Your task to perform on an android device: toggle improve location accuracy Image 0: 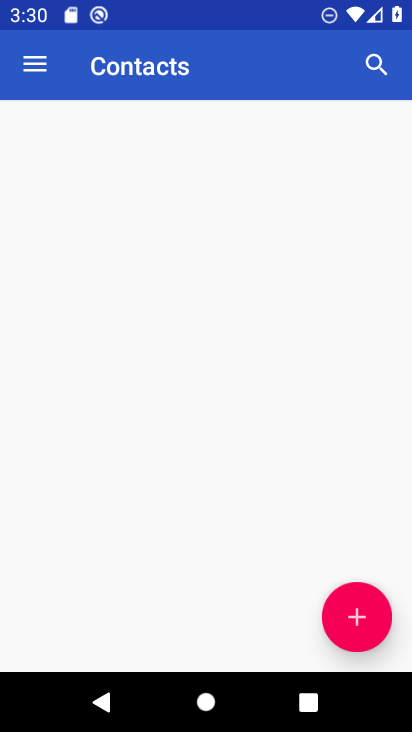
Step 0: press home button
Your task to perform on an android device: toggle improve location accuracy Image 1: 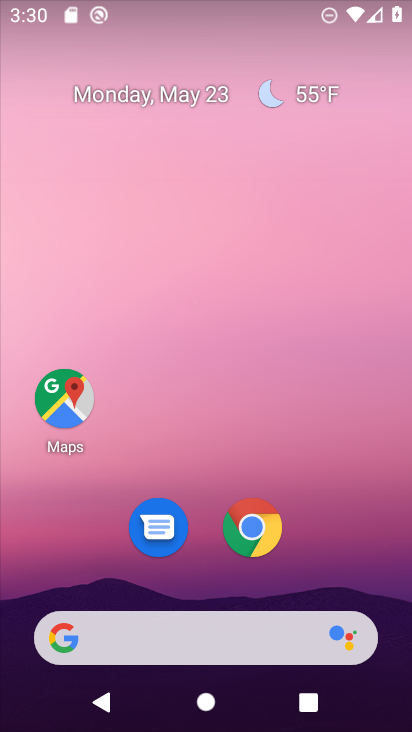
Step 1: drag from (211, 582) to (254, 112)
Your task to perform on an android device: toggle improve location accuracy Image 2: 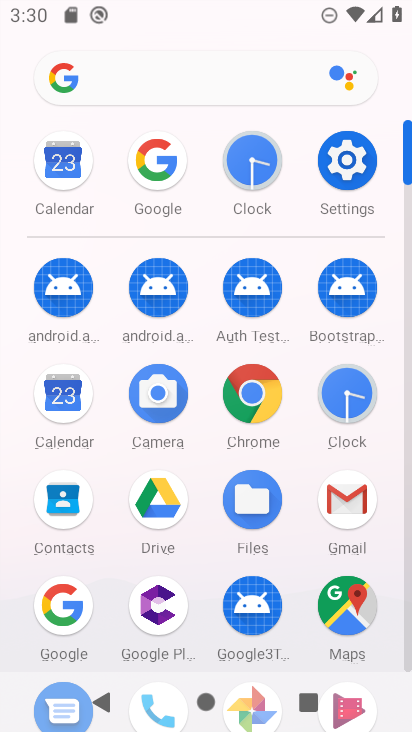
Step 2: click (345, 151)
Your task to perform on an android device: toggle improve location accuracy Image 3: 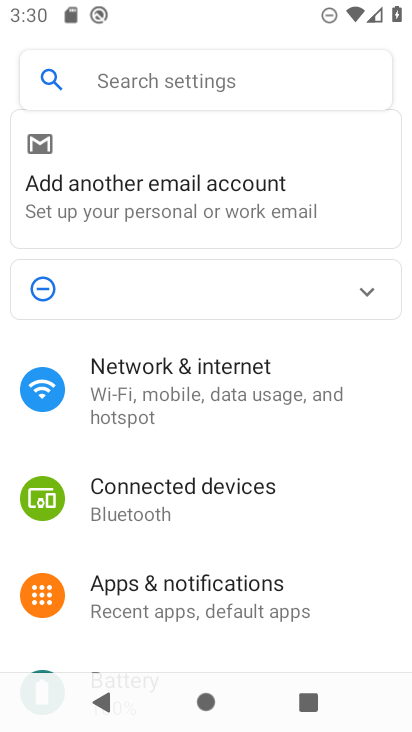
Step 3: drag from (203, 601) to (242, 198)
Your task to perform on an android device: toggle improve location accuracy Image 4: 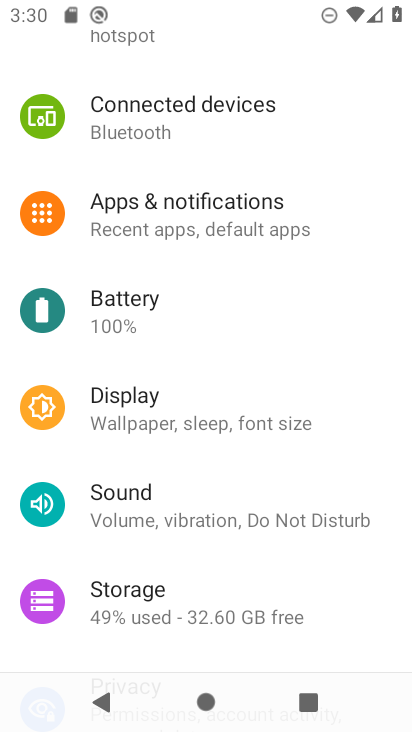
Step 4: click (242, 198)
Your task to perform on an android device: toggle improve location accuracy Image 5: 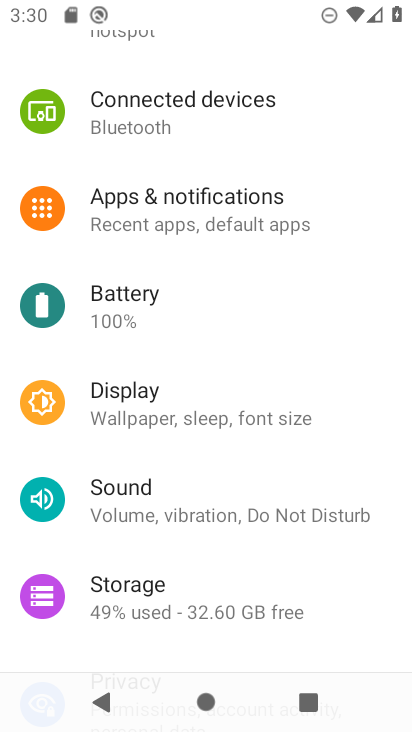
Step 5: drag from (203, 587) to (250, 130)
Your task to perform on an android device: toggle improve location accuracy Image 6: 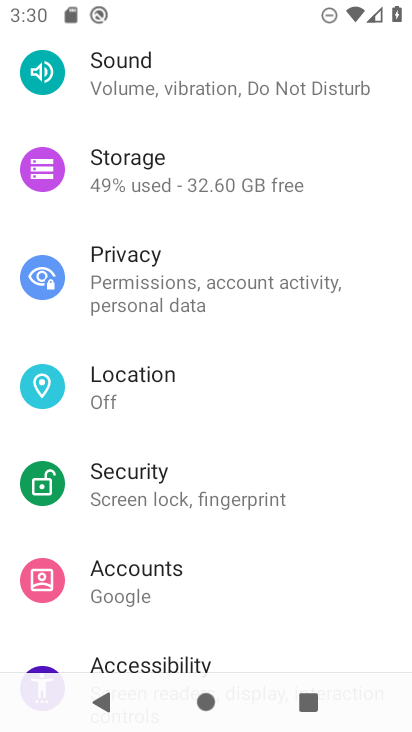
Step 6: click (148, 387)
Your task to perform on an android device: toggle improve location accuracy Image 7: 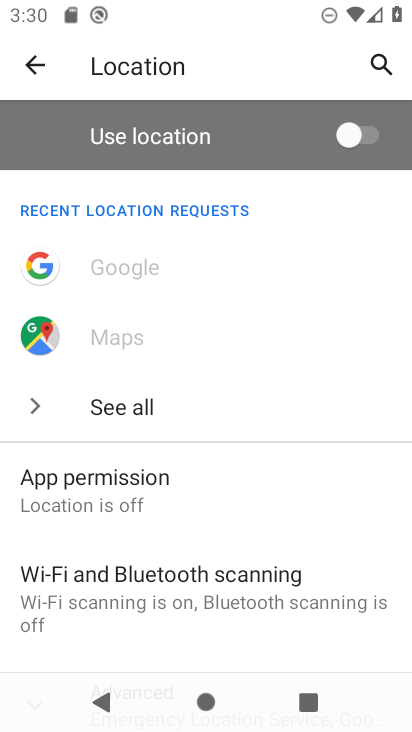
Step 7: drag from (165, 610) to (189, 149)
Your task to perform on an android device: toggle improve location accuracy Image 8: 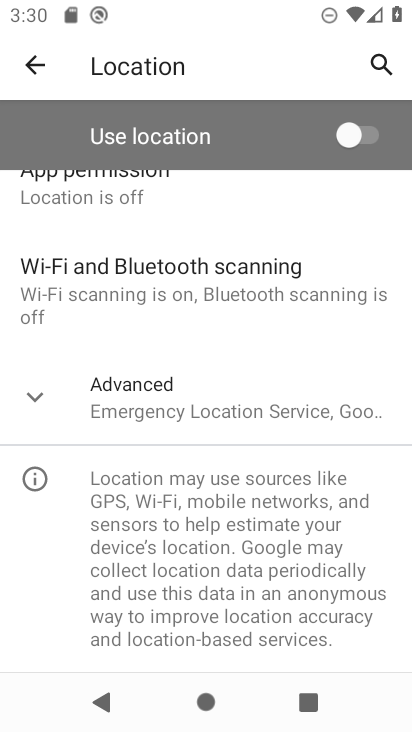
Step 8: click (33, 385)
Your task to perform on an android device: toggle improve location accuracy Image 9: 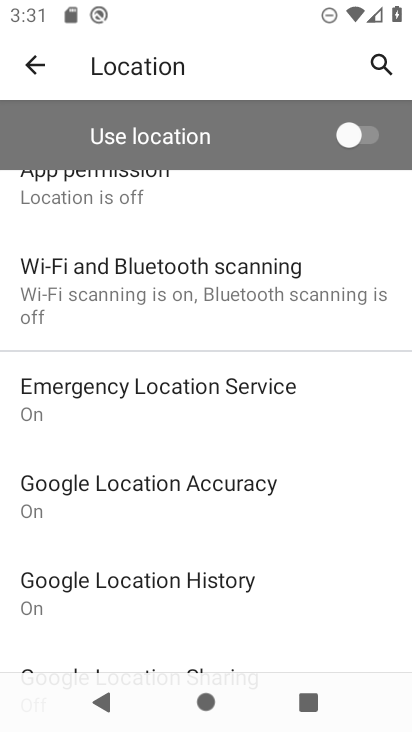
Step 9: click (104, 496)
Your task to perform on an android device: toggle improve location accuracy Image 10: 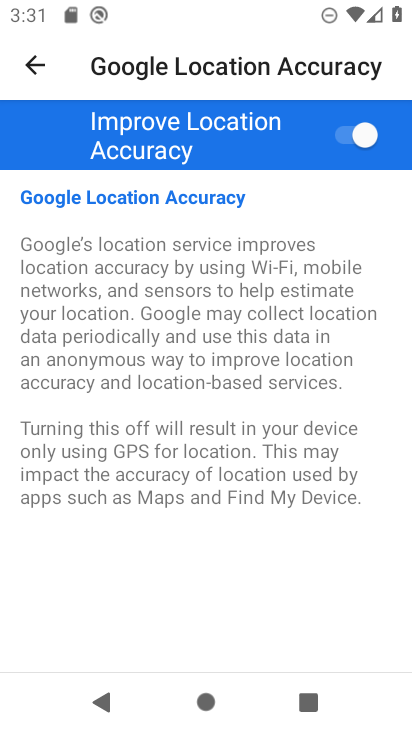
Step 10: task complete